Your task to perform on an android device: star an email in the gmail app Image 0: 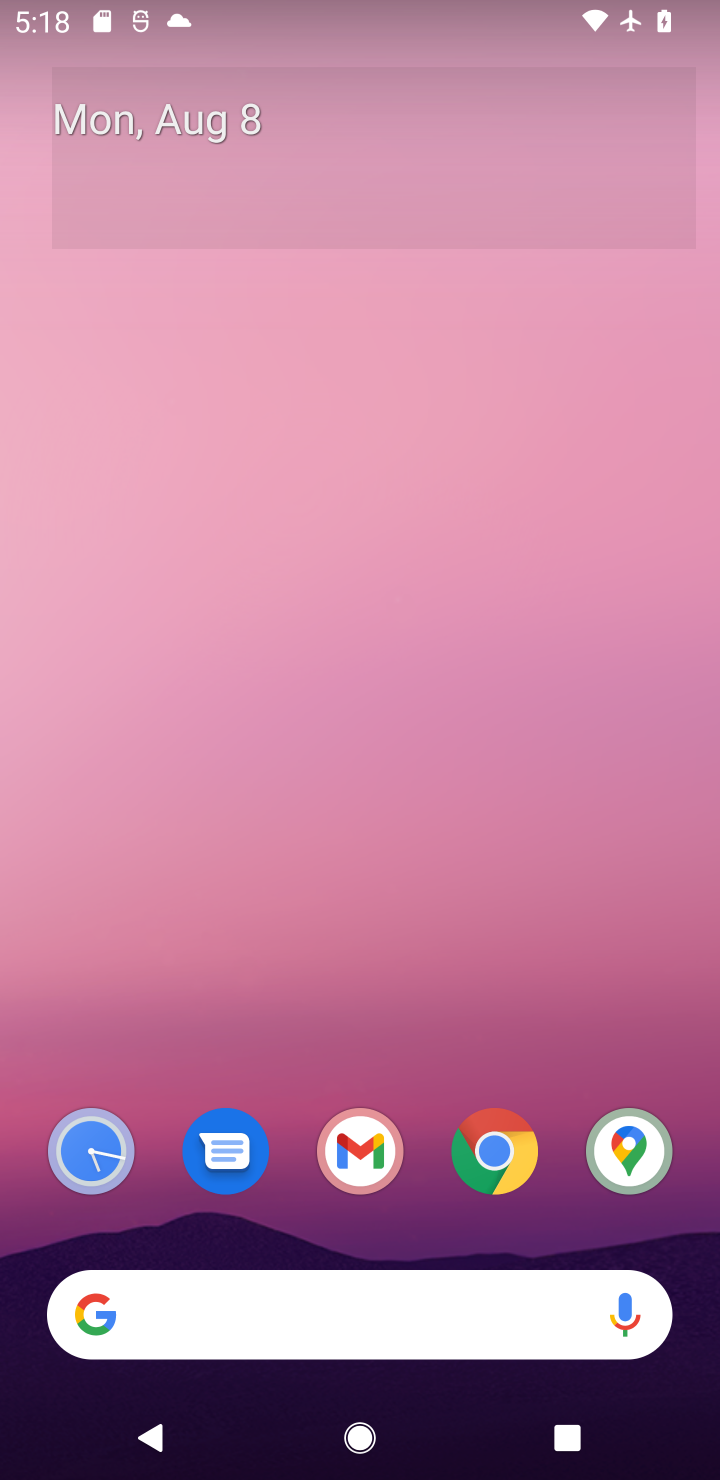
Step 0: click (361, 1138)
Your task to perform on an android device: star an email in the gmail app Image 1: 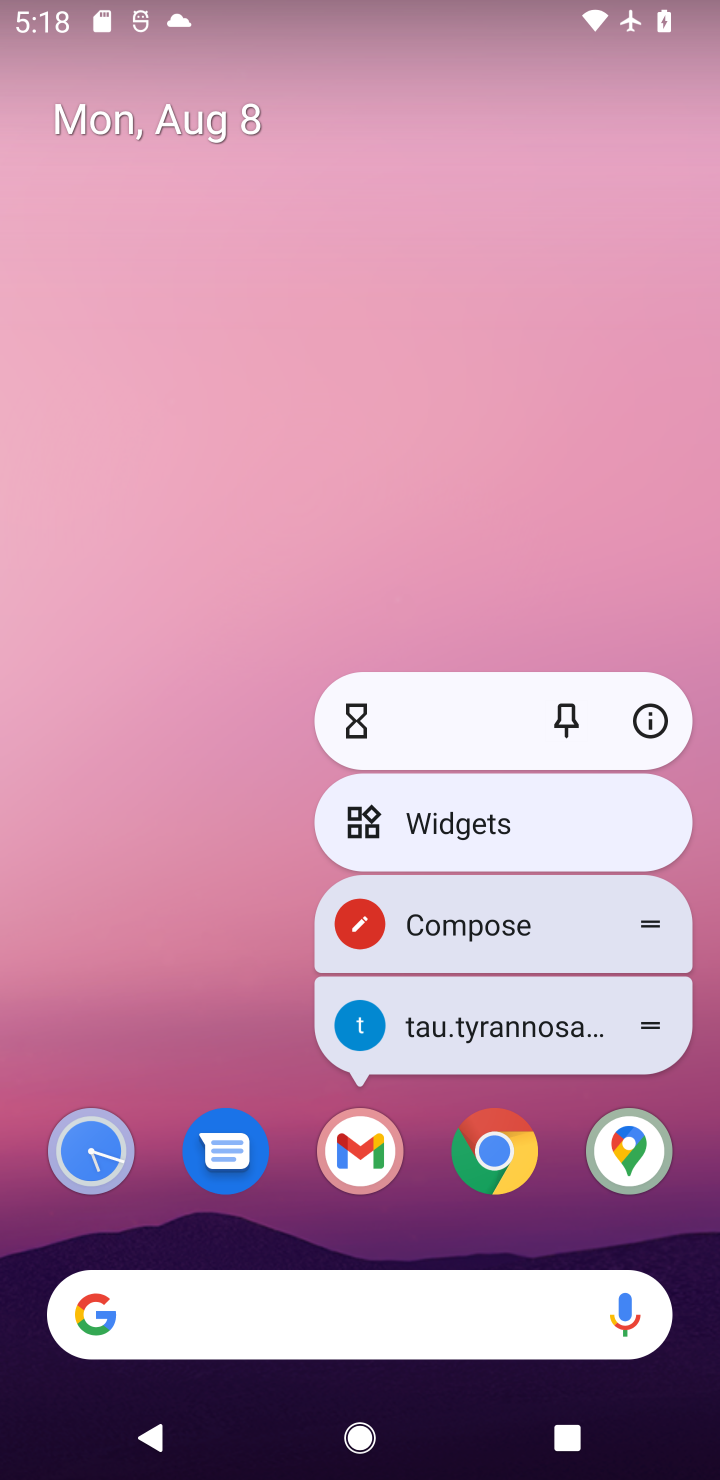
Step 1: click (361, 1138)
Your task to perform on an android device: star an email in the gmail app Image 2: 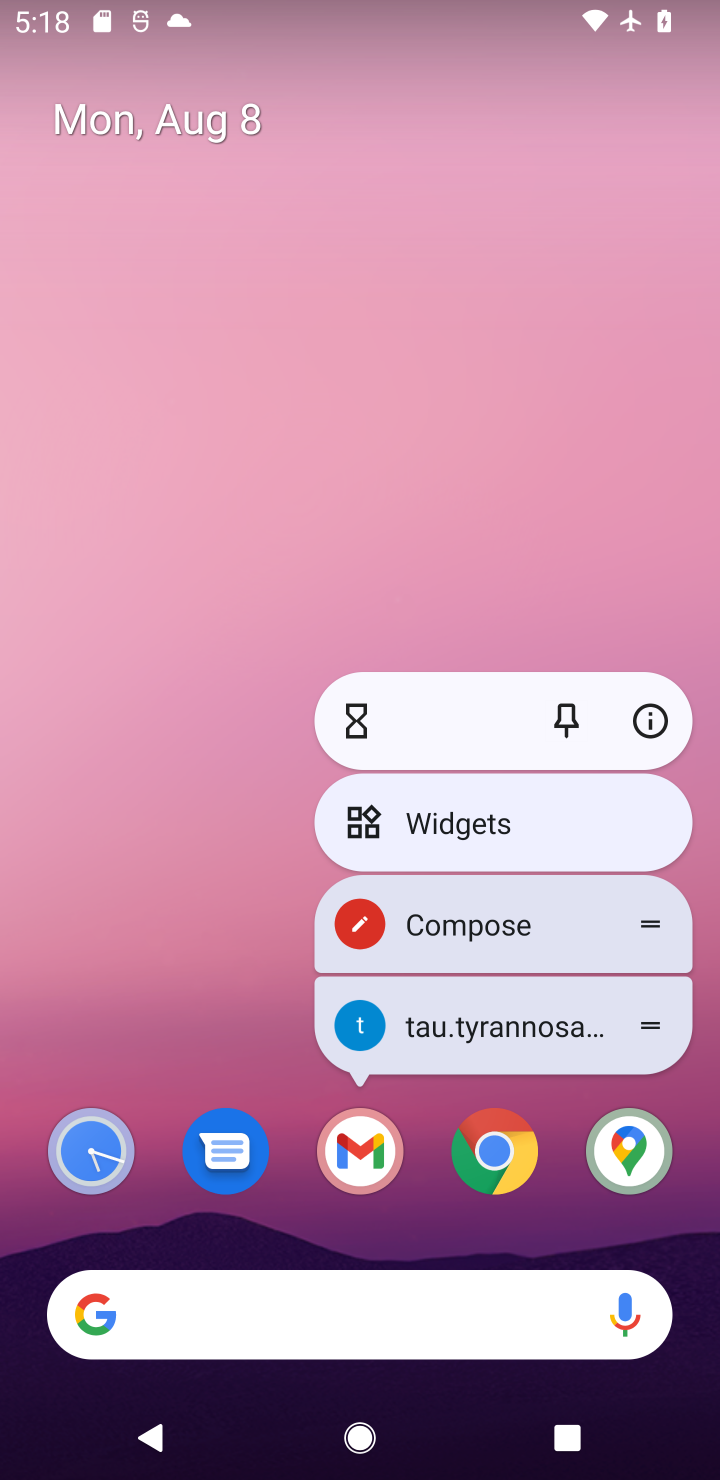
Step 2: click (350, 1166)
Your task to perform on an android device: star an email in the gmail app Image 3: 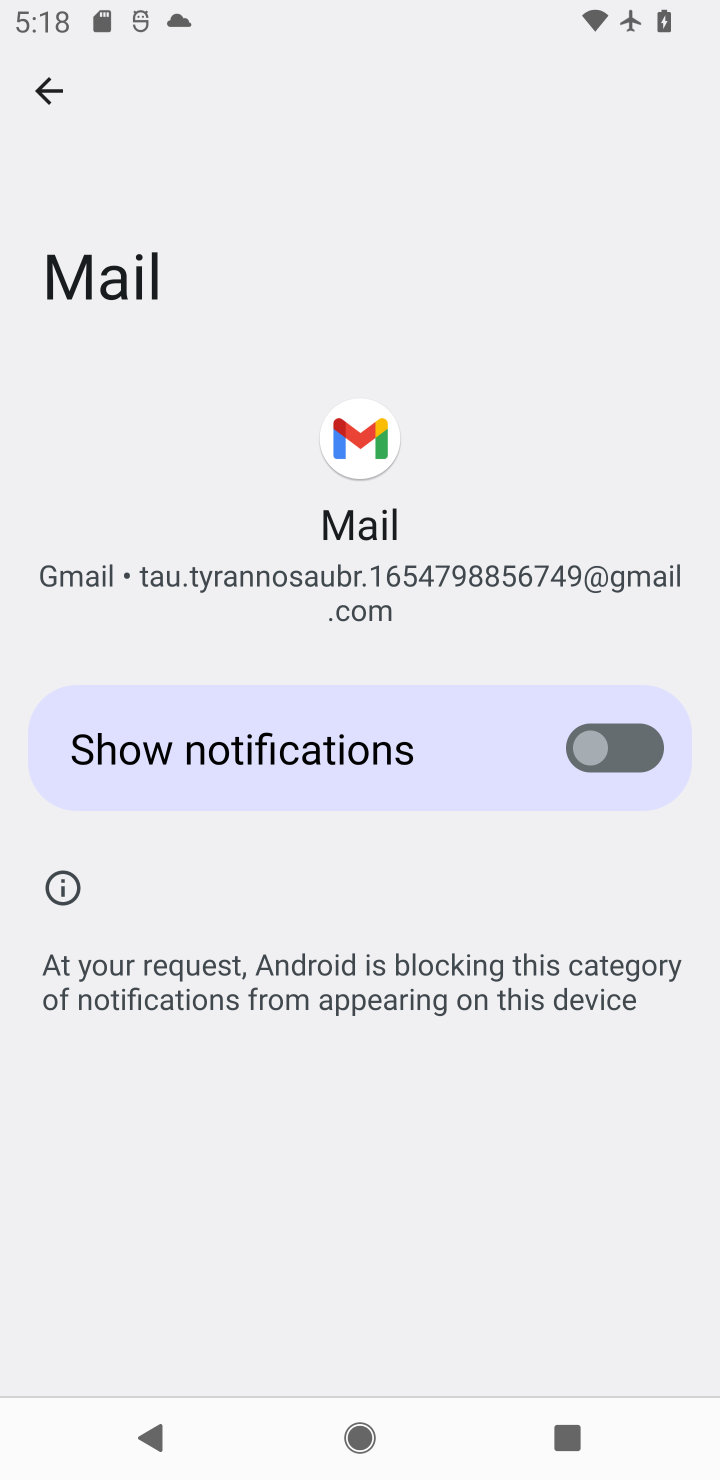
Step 3: click (47, 96)
Your task to perform on an android device: star an email in the gmail app Image 4: 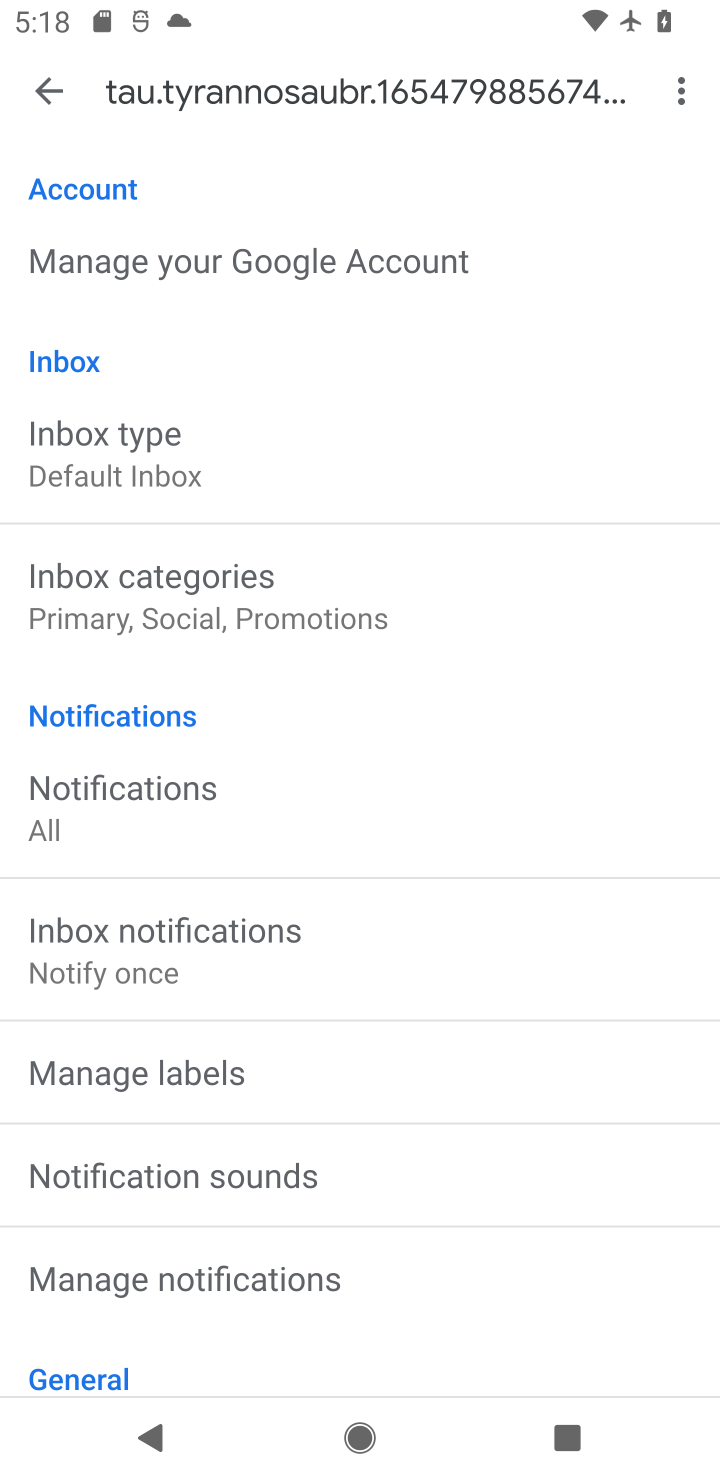
Step 4: click (47, 96)
Your task to perform on an android device: star an email in the gmail app Image 5: 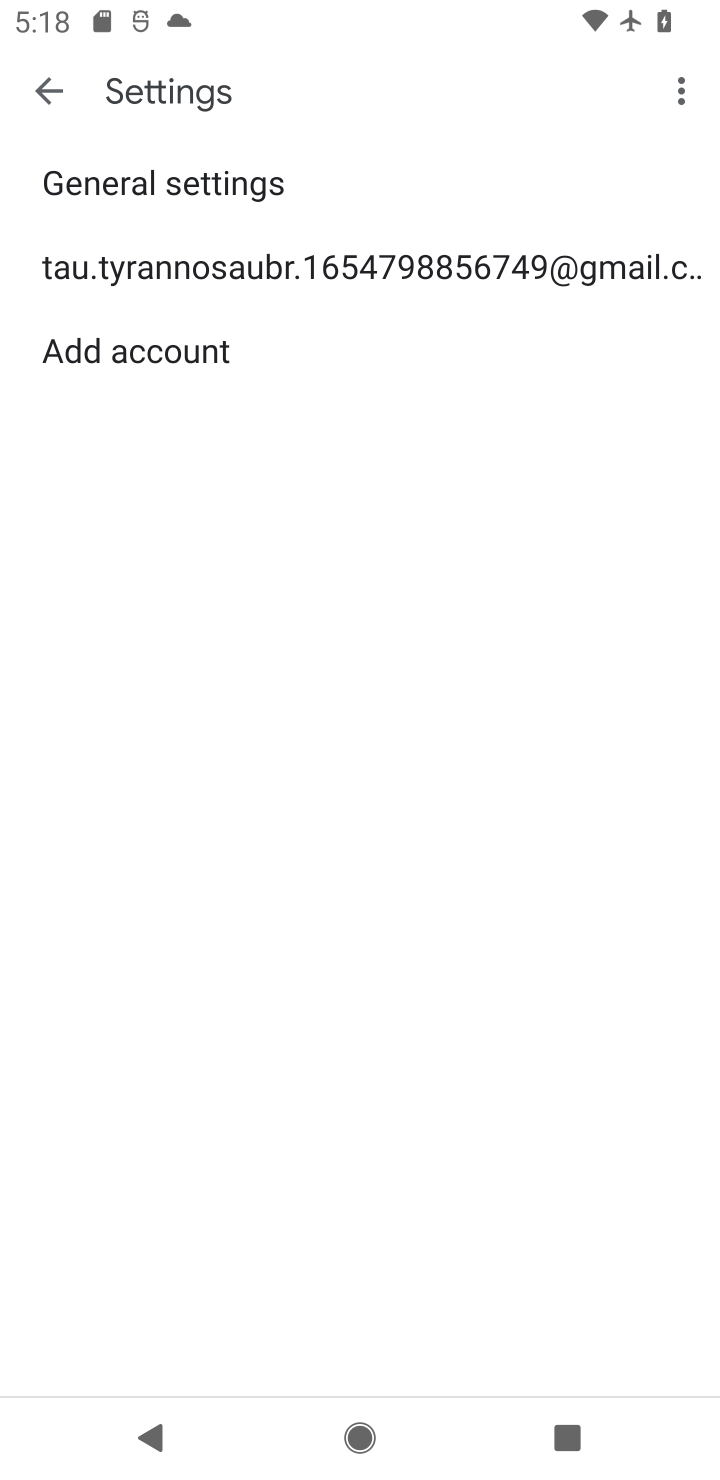
Step 5: click (47, 96)
Your task to perform on an android device: star an email in the gmail app Image 6: 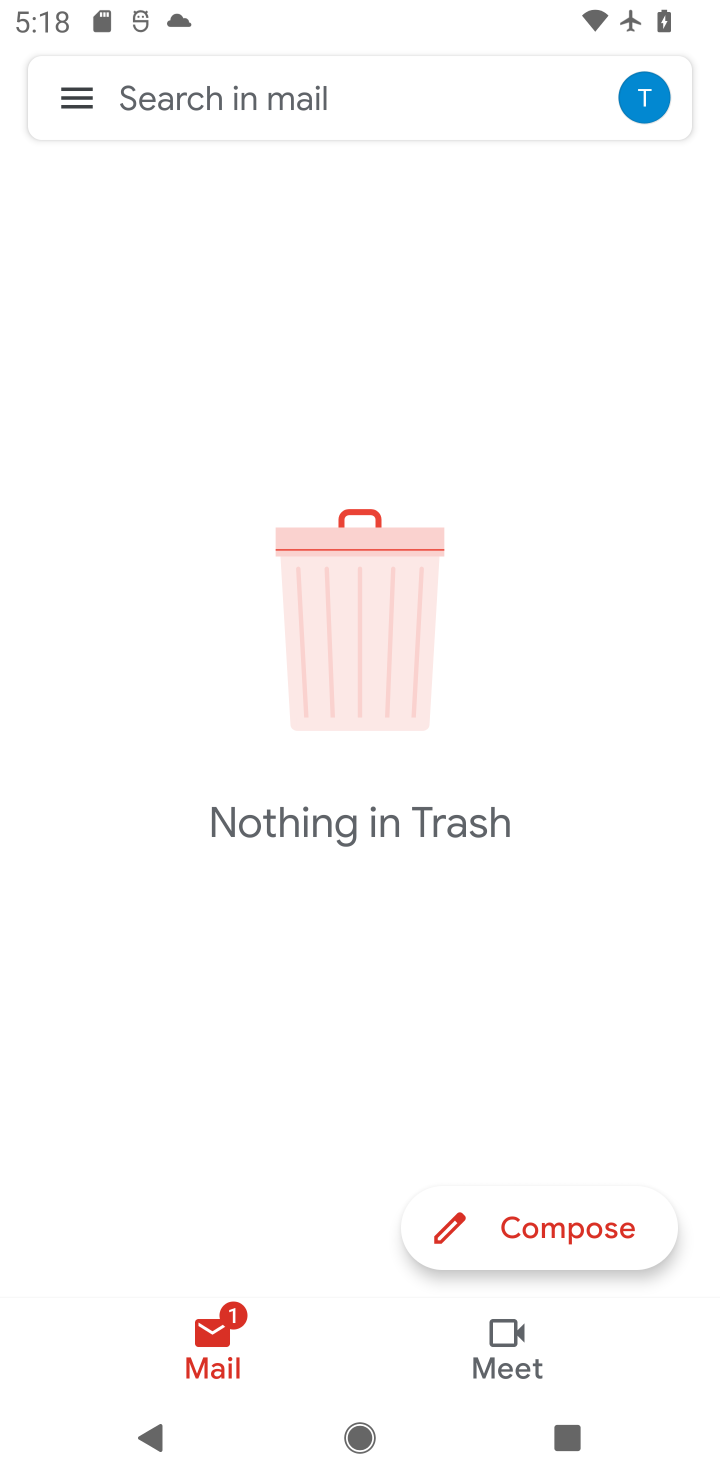
Step 6: click (92, 107)
Your task to perform on an android device: star an email in the gmail app Image 7: 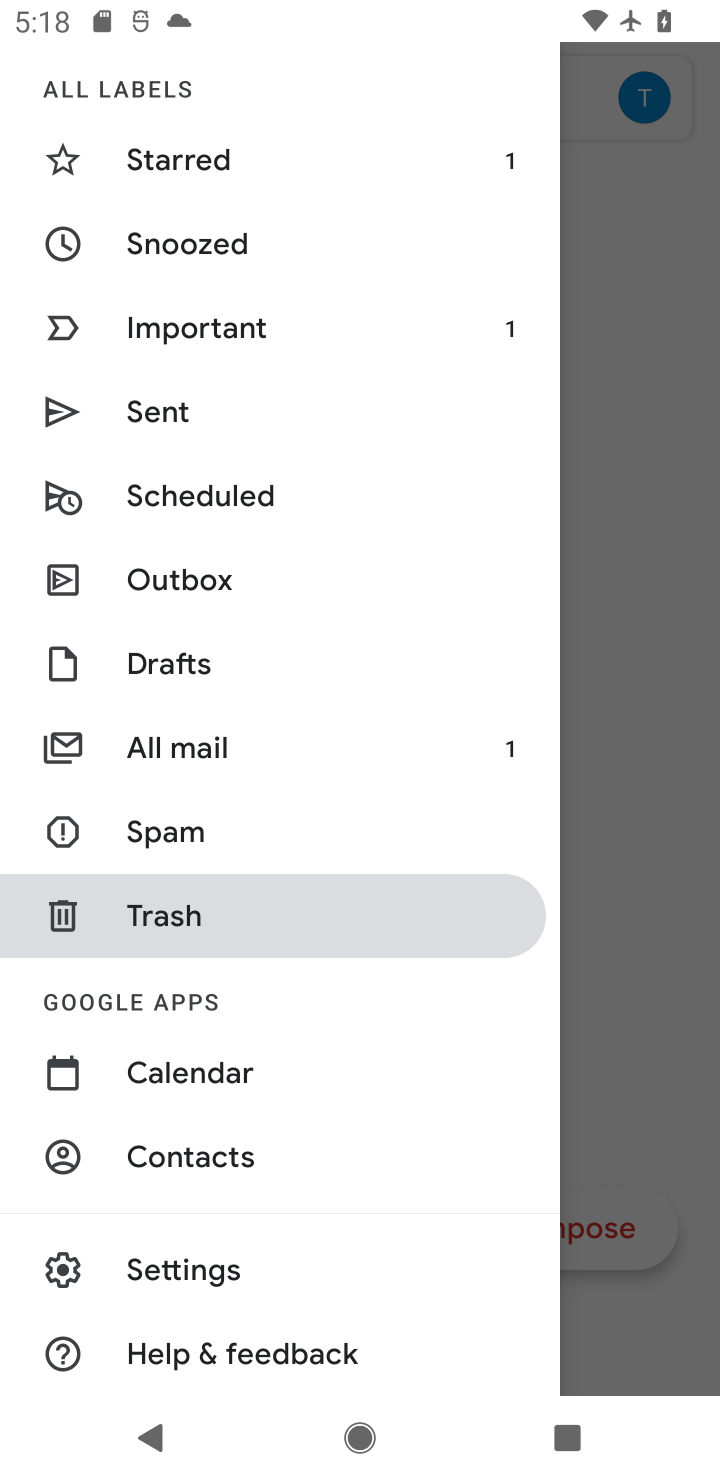
Step 7: click (197, 759)
Your task to perform on an android device: star an email in the gmail app Image 8: 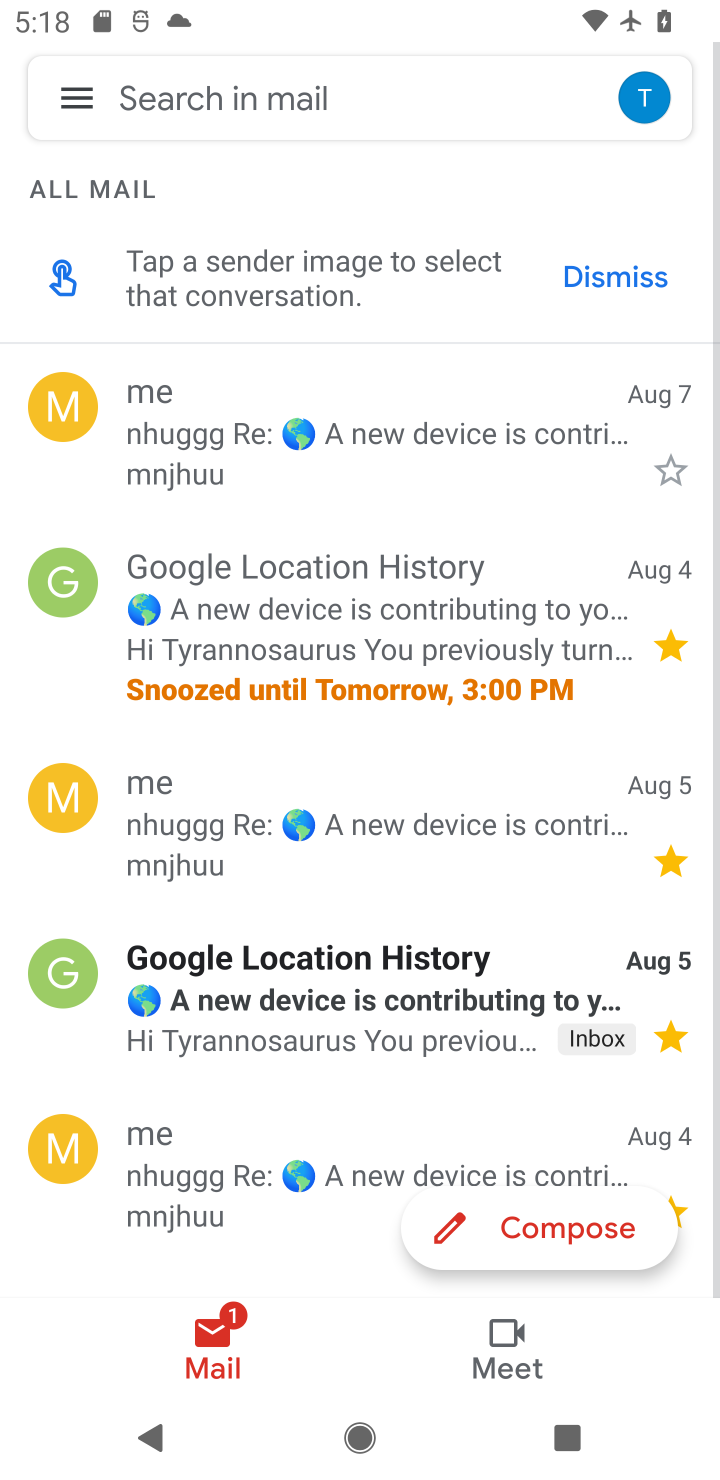
Step 8: click (652, 483)
Your task to perform on an android device: star an email in the gmail app Image 9: 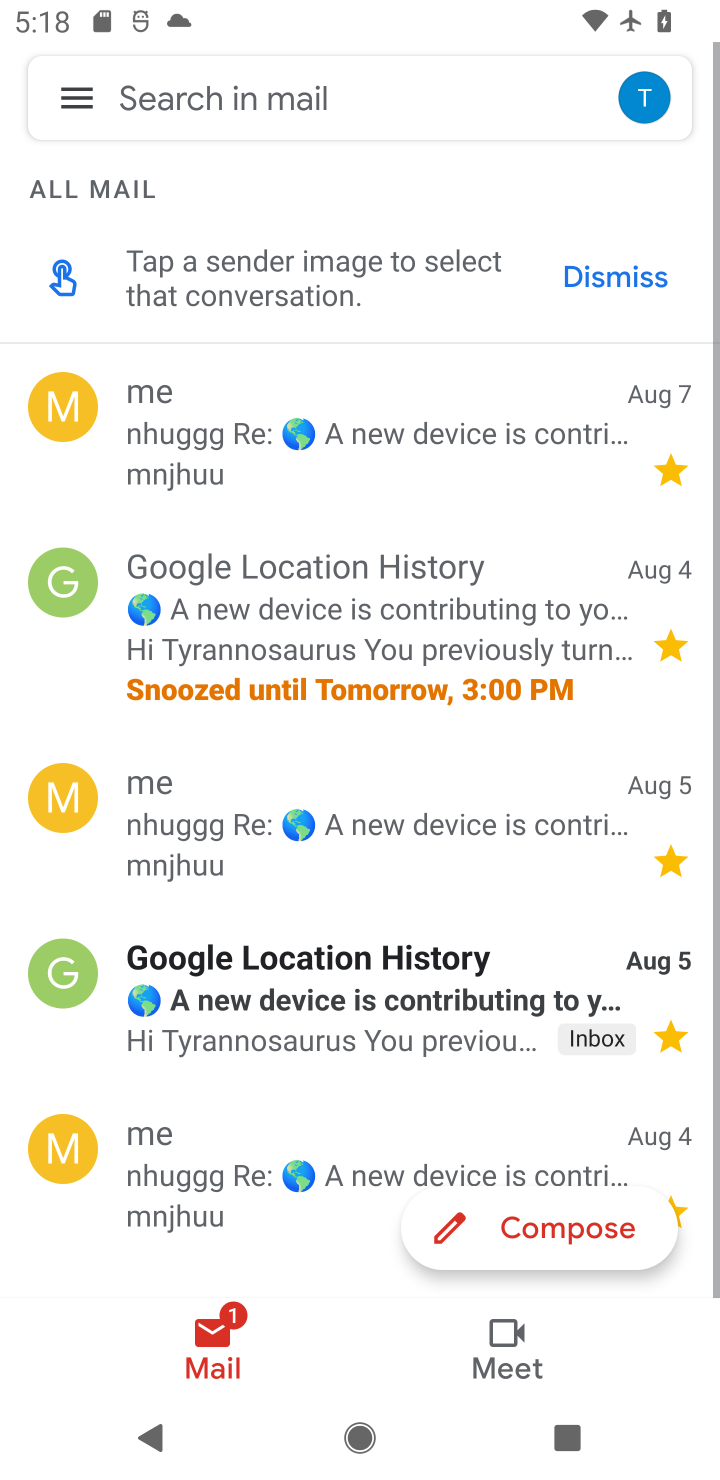
Step 9: task complete